Your task to perform on an android device: Open Google Chrome Image 0: 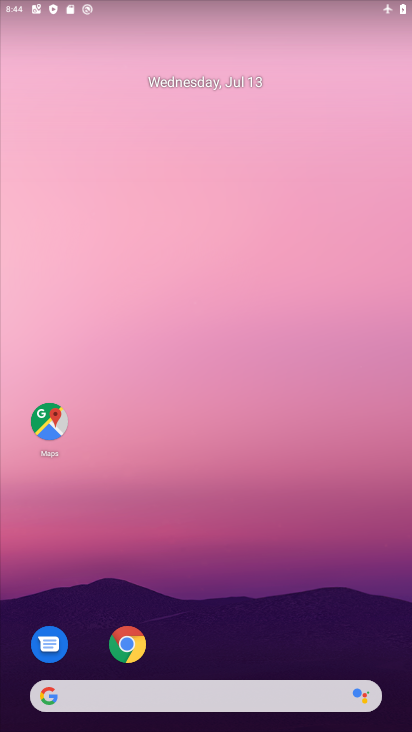
Step 0: click (128, 647)
Your task to perform on an android device: Open Google Chrome Image 1: 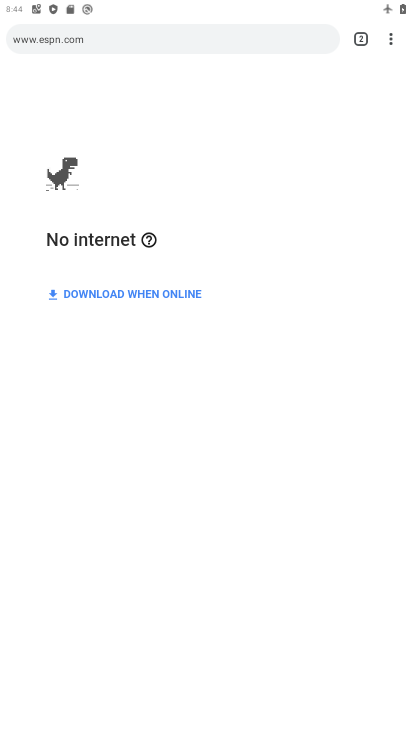
Step 1: task complete